Your task to perform on an android device: toggle pop-ups in chrome Image 0: 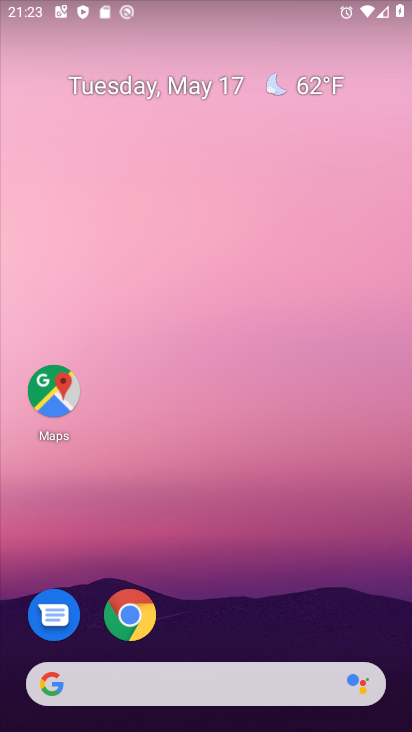
Step 0: click (129, 614)
Your task to perform on an android device: toggle pop-ups in chrome Image 1: 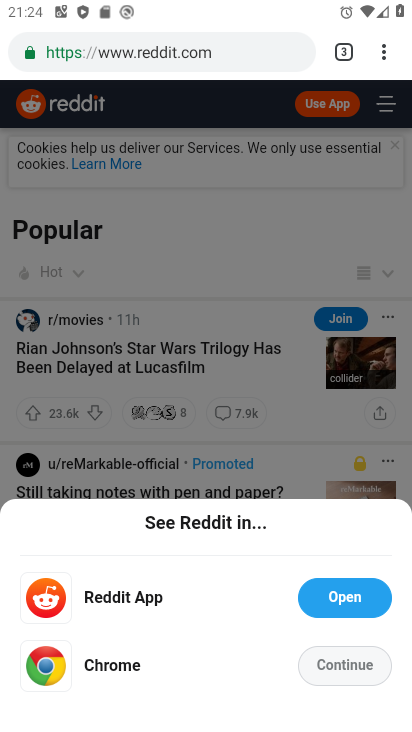
Step 1: drag from (387, 58) to (211, 634)
Your task to perform on an android device: toggle pop-ups in chrome Image 2: 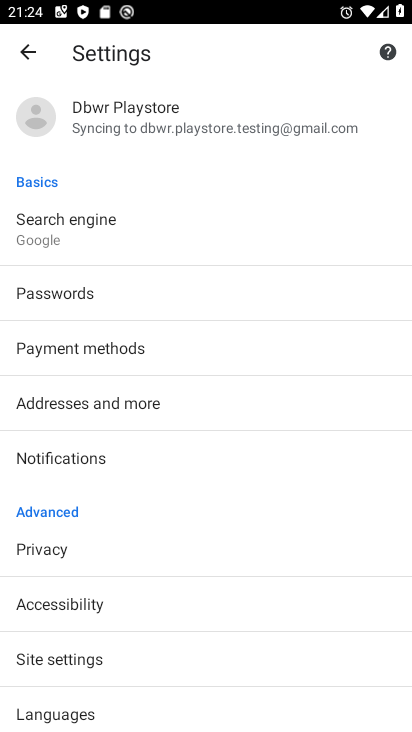
Step 2: drag from (175, 655) to (212, 300)
Your task to perform on an android device: toggle pop-ups in chrome Image 3: 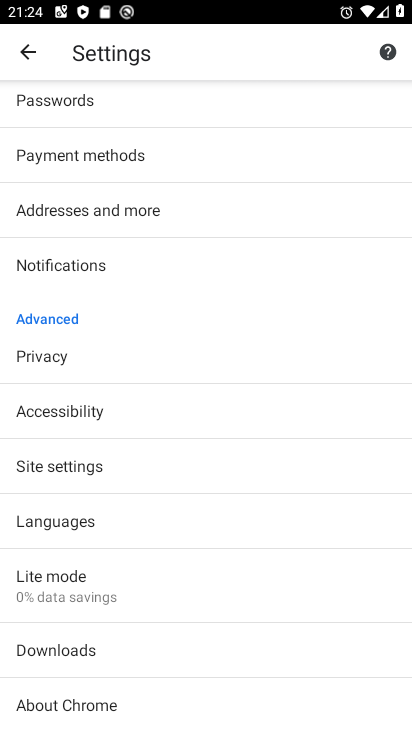
Step 3: click (59, 468)
Your task to perform on an android device: toggle pop-ups in chrome Image 4: 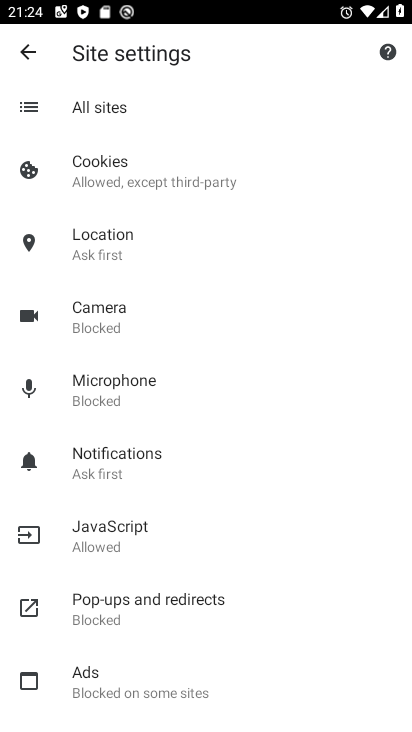
Step 4: click (146, 597)
Your task to perform on an android device: toggle pop-ups in chrome Image 5: 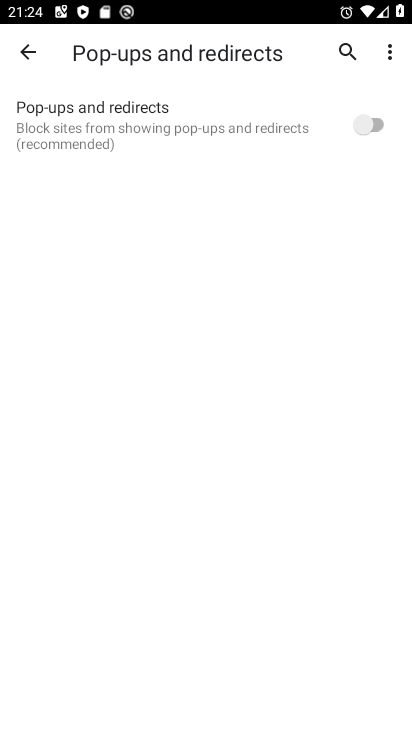
Step 5: click (368, 122)
Your task to perform on an android device: toggle pop-ups in chrome Image 6: 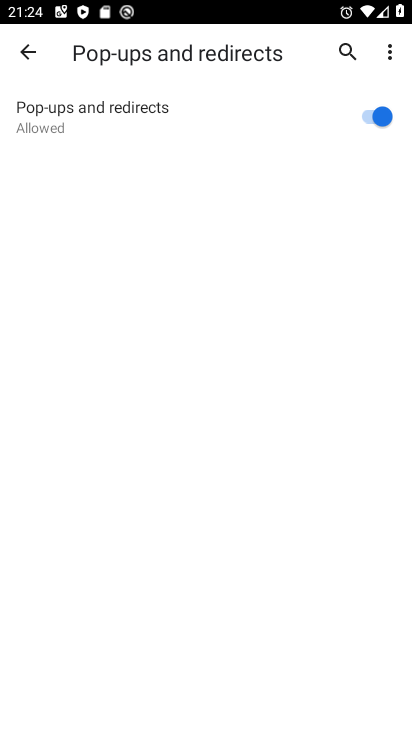
Step 6: task complete